Your task to perform on an android device: turn on bluetooth scan Image 0: 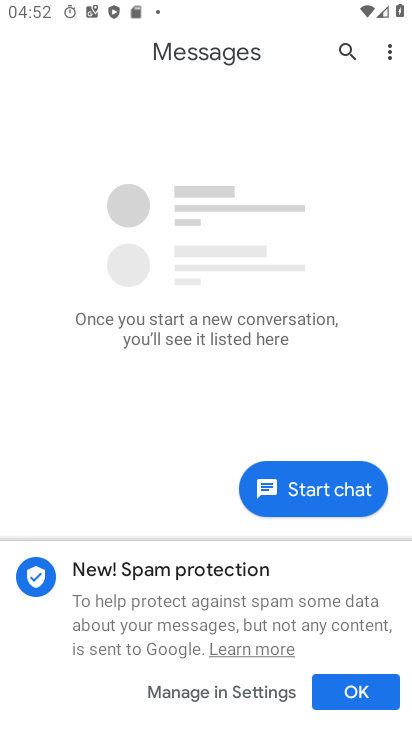
Step 0: drag from (186, 616) to (191, 222)
Your task to perform on an android device: turn on bluetooth scan Image 1: 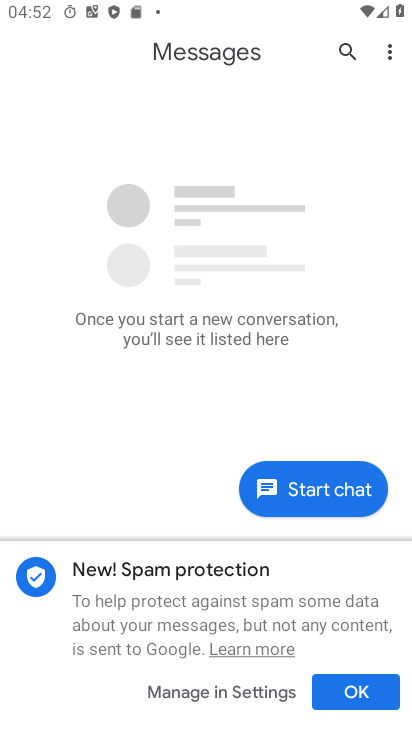
Step 1: press home button
Your task to perform on an android device: turn on bluetooth scan Image 2: 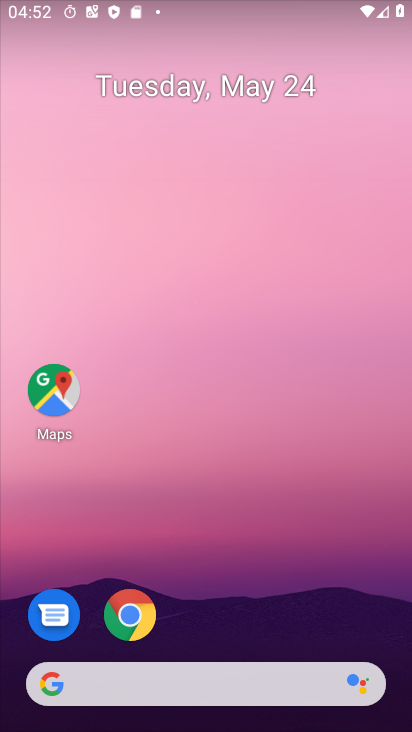
Step 2: drag from (220, 640) to (328, 126)
Your task to perform on an android device: turn on bluetooth scan Image 3: 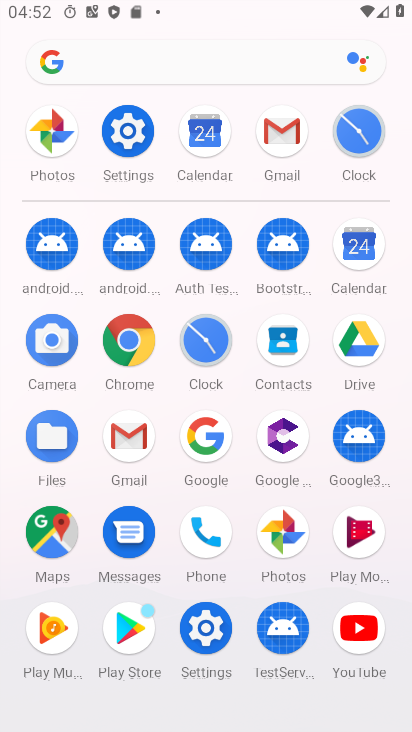
Step 3: click (124, 136)
Your task to perform on an android device: turn on bluetooth scan Image 4: 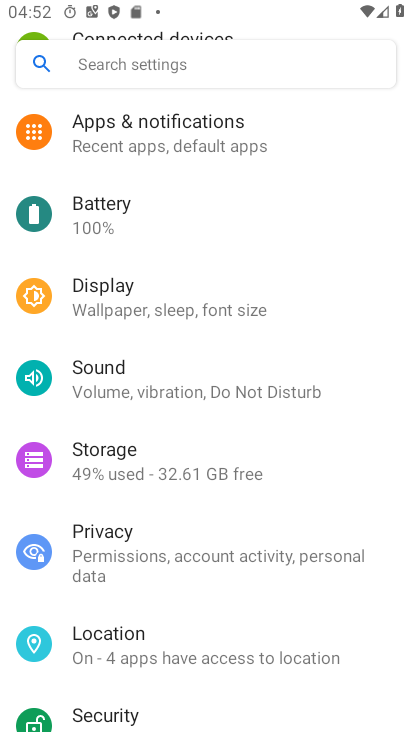
Step 4: drag from (219, 273) to (231, 727)
Your task to perform on an android device: turn on bluetooth scan Image 5: 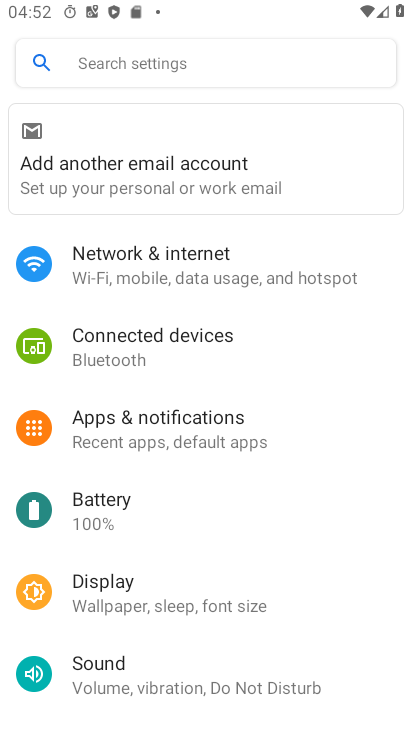
Step 5: click (93, 340)
Your task to perform on an android device: turn on bluetooth scan Image 6: 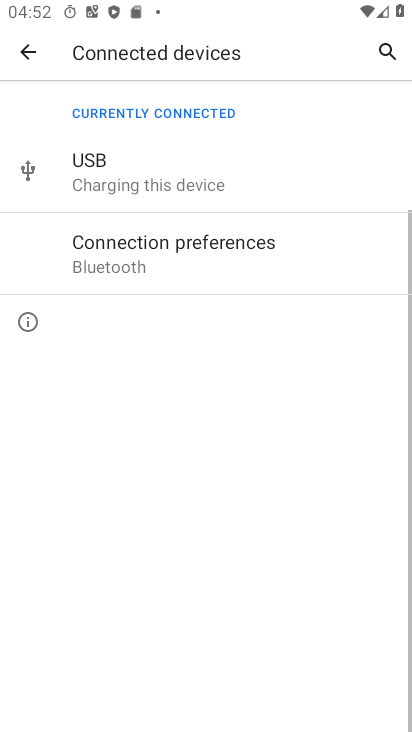
Step 6: click (144, 256)
Your task to perform on an android device: turn on bluetooth scan Image 7: 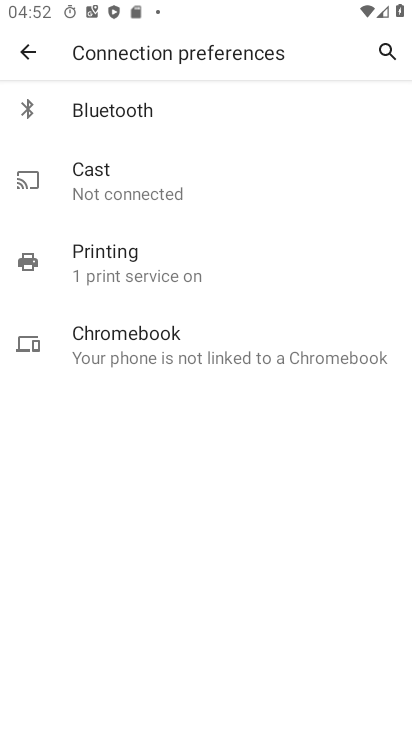
Step 7: click (150, 110)
Your task to perform on an android device: turn on bluetooth scan Image 8: 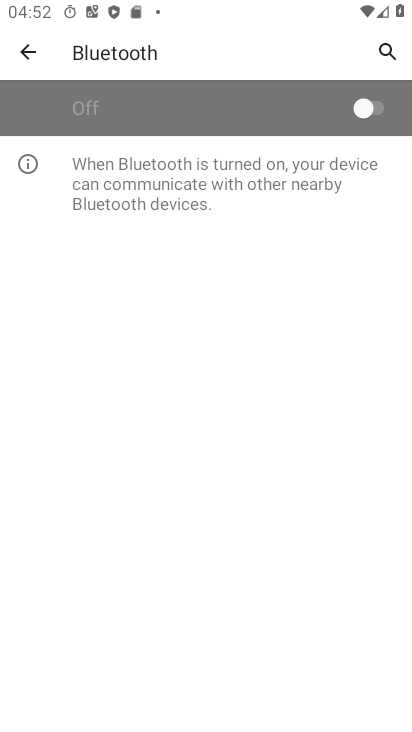
Step 8: click (355, 109)
Your task to perform on an android device: turn on bluetooth scan Image 9: 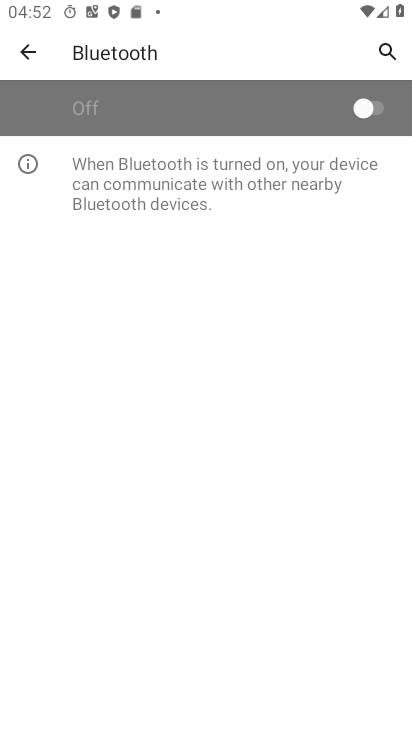
Step 9: task complete